Your task to perform on an android device: Open CNN.com Image 0: 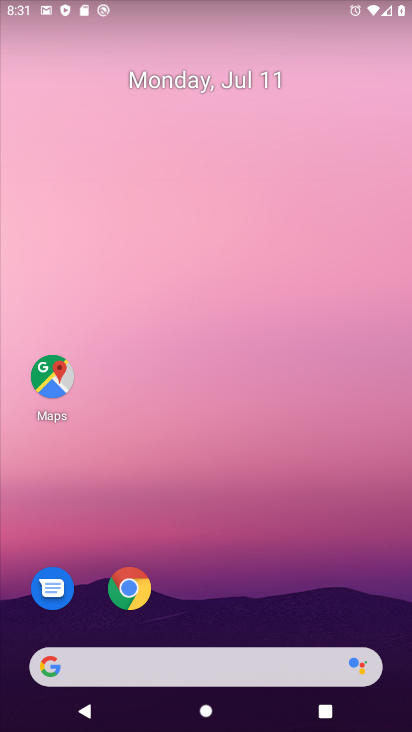
Step 0: click (129, 590)
Your task to perform on an android device: Open CNN.com Image 1: 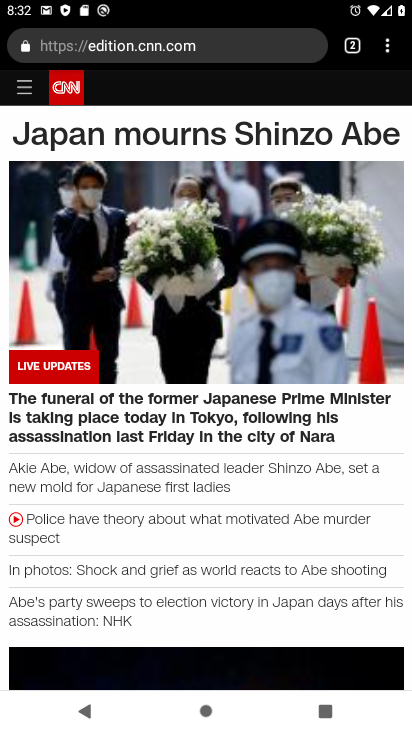
Step 1: task complete